Your task to perform on an android device: Open settings on Google Maps Image 0: 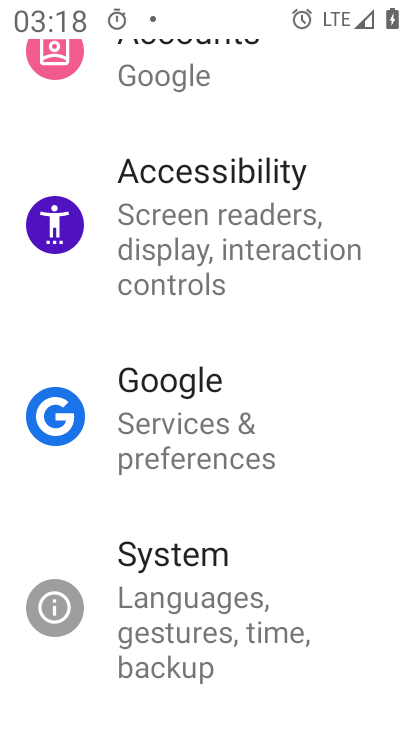
Step 0: press back button
Your task to perform on an android device: Open settings on Google Maps Image 1: 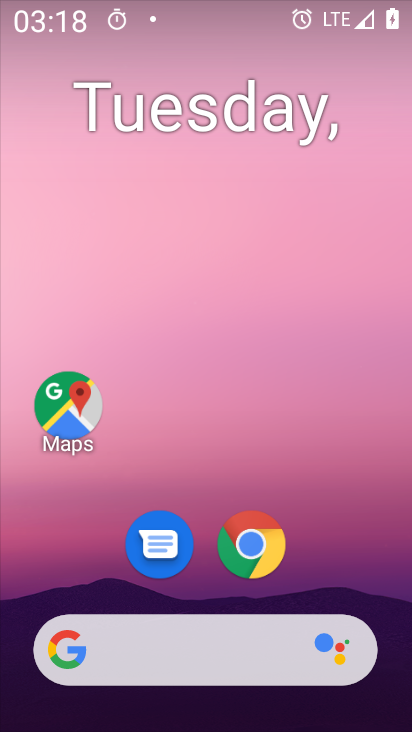
Step 1: drag from (383, 555) to (272, 22)
Your task to perform on an android device: Open settings on Google Maps Image 2: 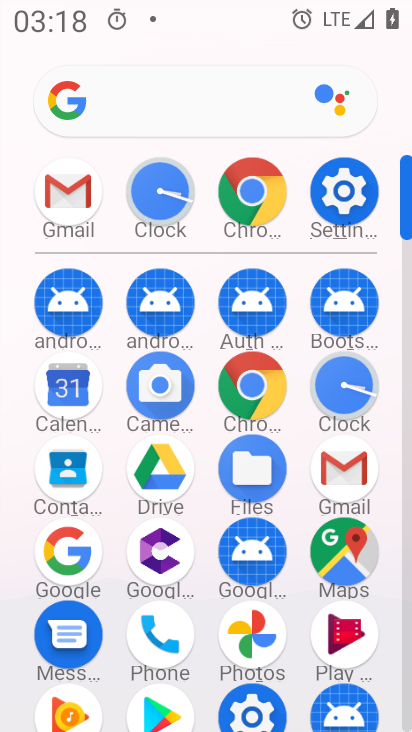
Step 2: drag from (22, 518) to (19, 224)
Your task to perform on an android device: Open settings on Google Maps Image 3: 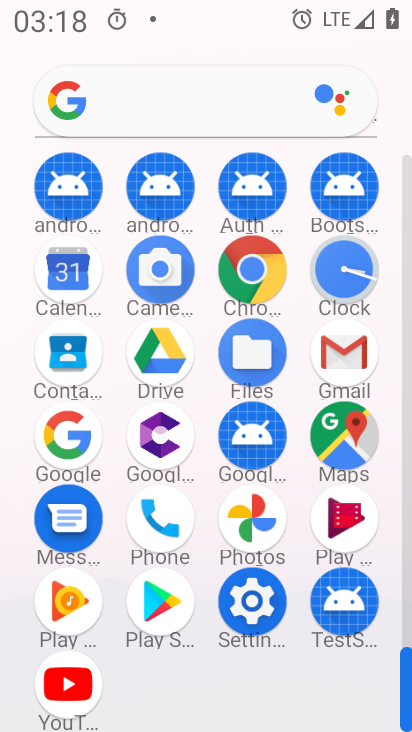
Step 3: click (339, 436)
Your task to perform on an android device: Open settings on Google Maps Image 4: 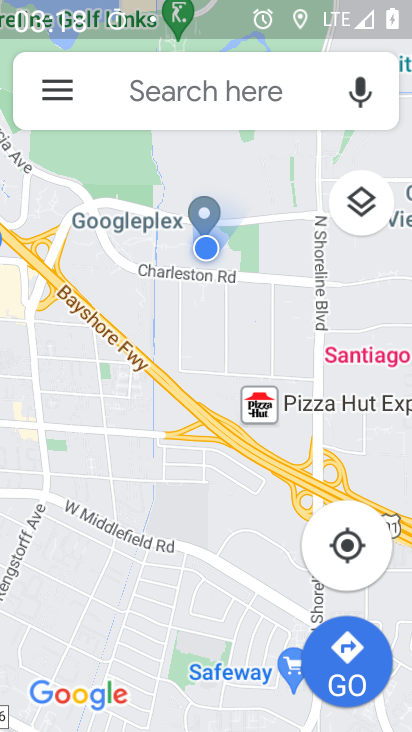
Step 4: task complete